Your task to perform on an android device: turn on location history Image 0: 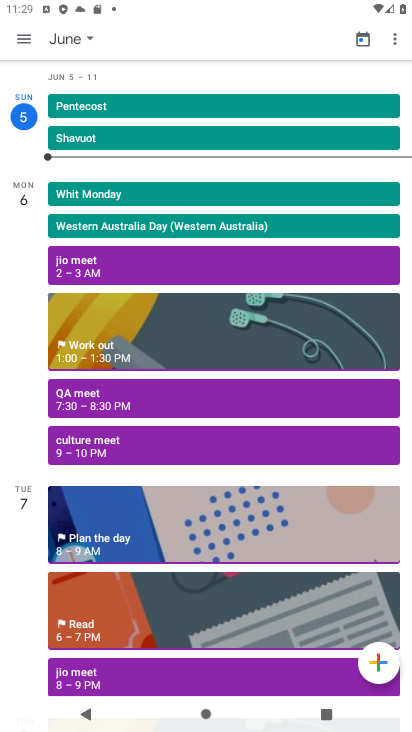
Step 0: task complete